Your task to perform on an android device: show emergency info Image 0: 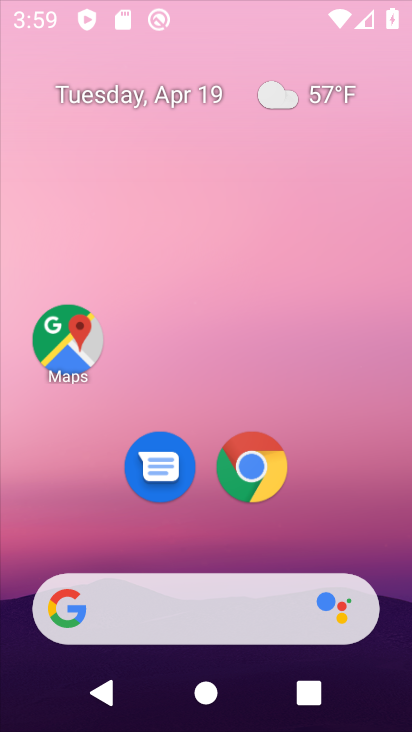
Step 0: click (282, 139)
Your task to perform on an android device: show emergency info Image 1: 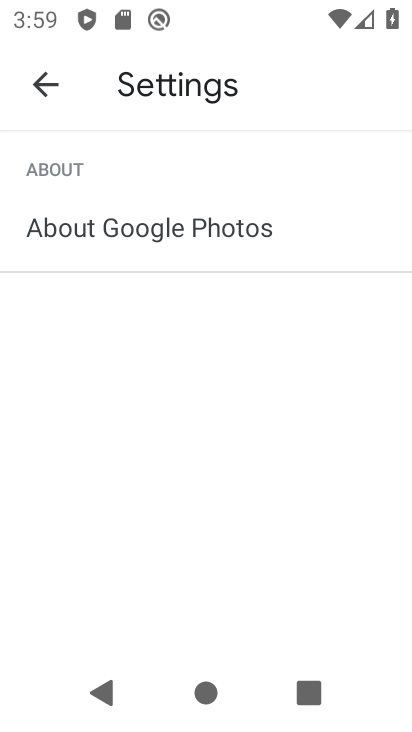
Step 1: task complete